Your task to perform on an android device: Go to privacy settings Image 0: 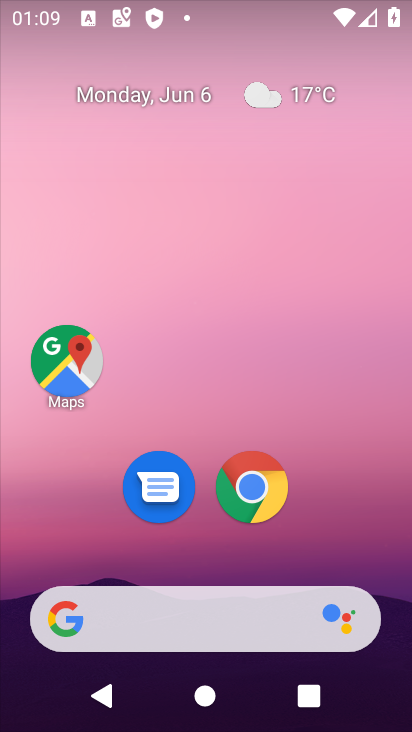
Step 0: drag from (398, 614) to (323, 147)
Your task to perform on an android device: Go to privacy settings Image 1: 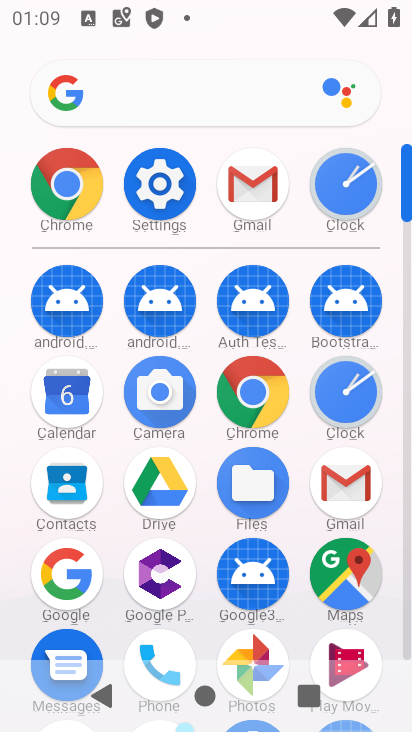
Step 1: click (405, 633)
Your task to perform on an android device: Go to privacy settings Image 2: 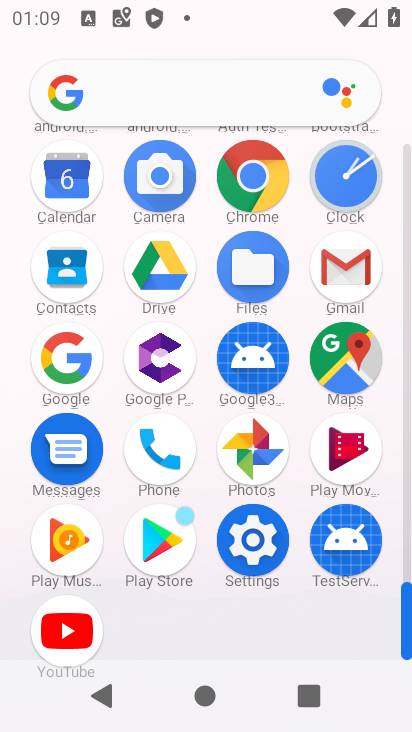
Step 2: click (254, 537)
Your task to perform on an android device: Go to privacy settings Image 3: 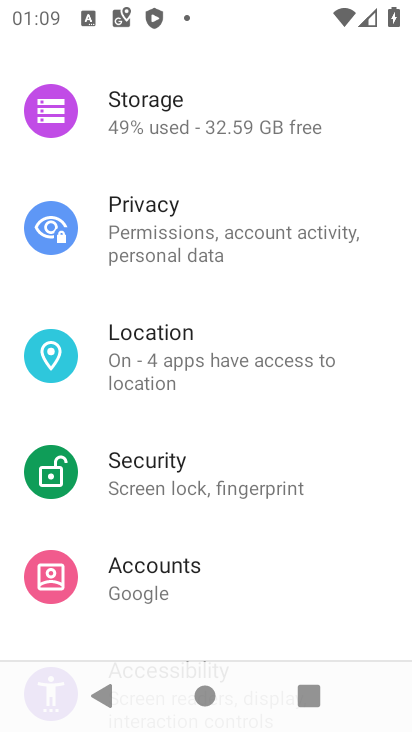
Step 3: click (161, 199)
Your task to perform on an android device: Go to privacy settings Image 4: 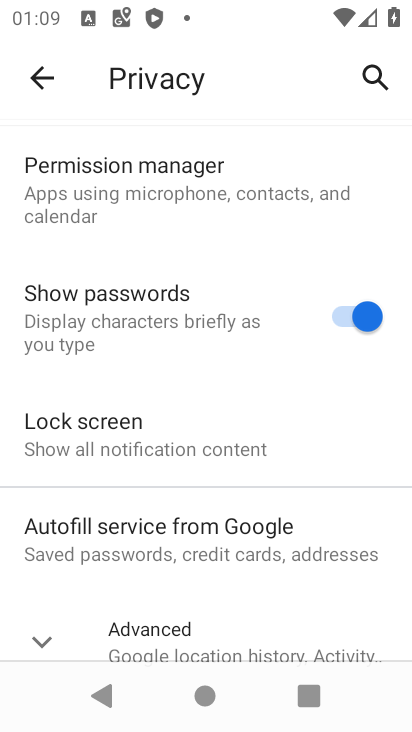
Step 4: drag from (212, 585) to (212, 245)
Your task to perform on an android device: Go to privacy settings Image 5: 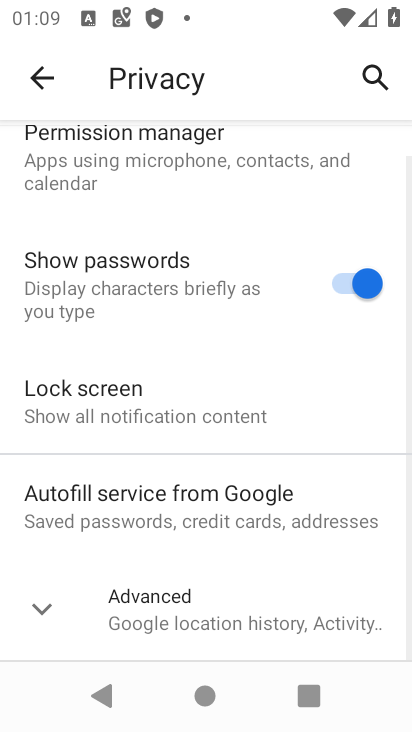
Step 5: click (38, 611)
Your task to perform on an android device: Go to privacy settings Image 6: 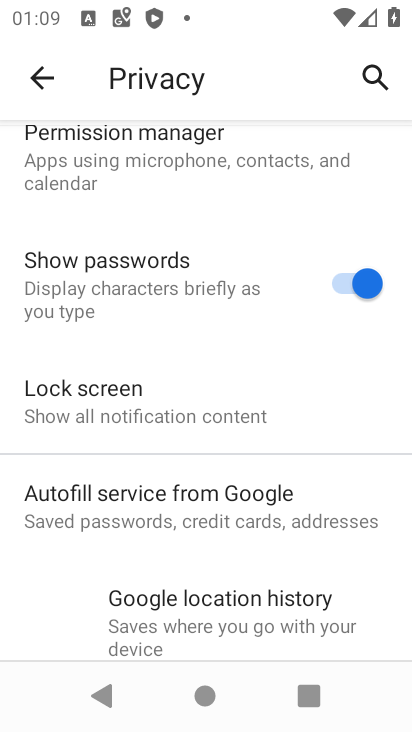
Step 6: task complete